Your task to perform on an android device: toggle location history Image 0: 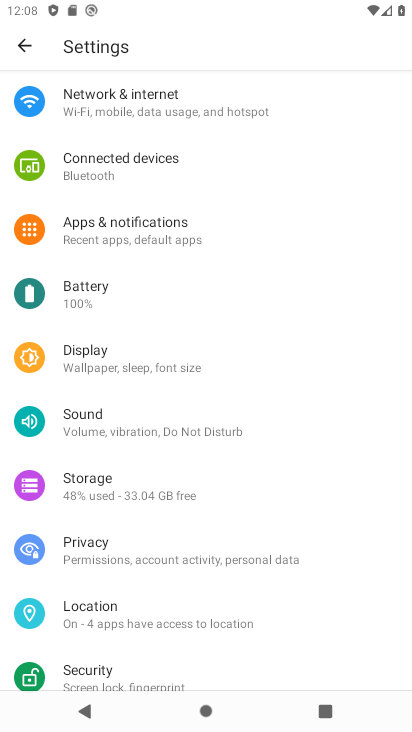
Step 0: click (115, 611)
Your task to perform on an android device: toggle location history Image 1: 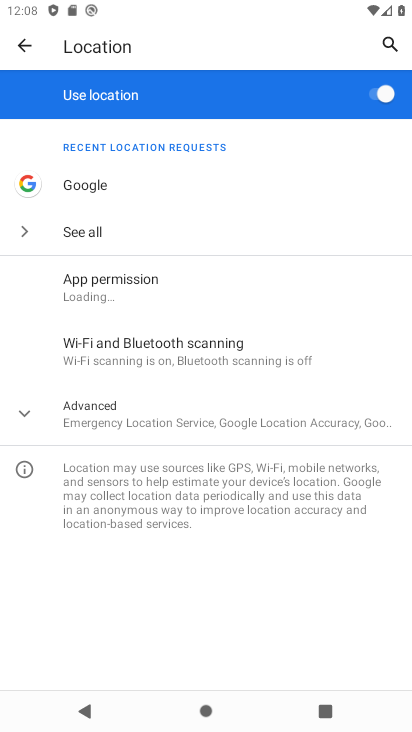
Step 1: click (132, 411)
Your task to perform on an android device: toggle location history Image 2: 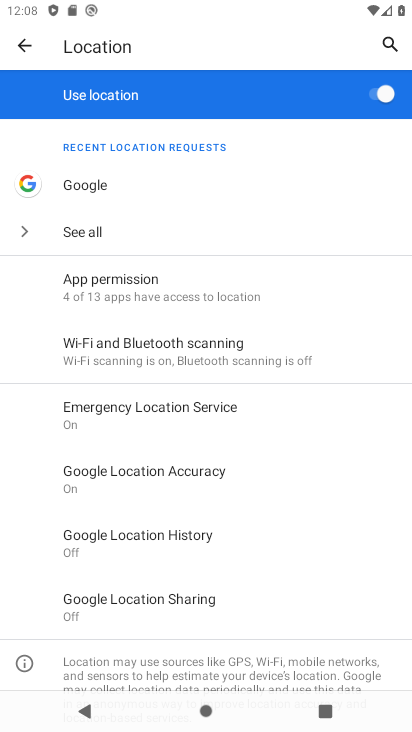
Step 2: click (111, 530)
Your task to perform on an android device: toggle location history Image 3: 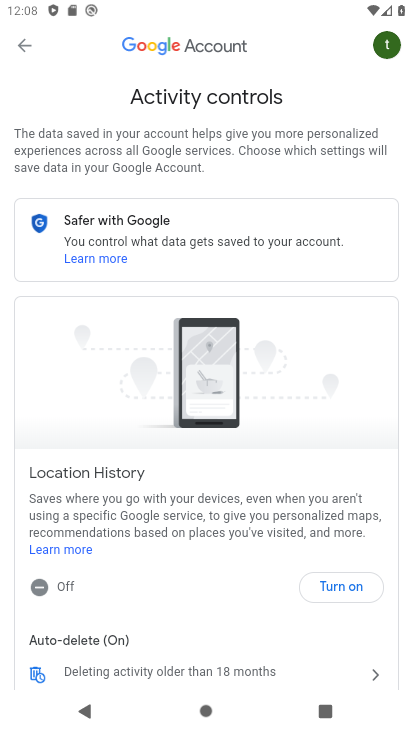
Step 3: task complete